Your task to perform on an android device: delete location history Image 0: 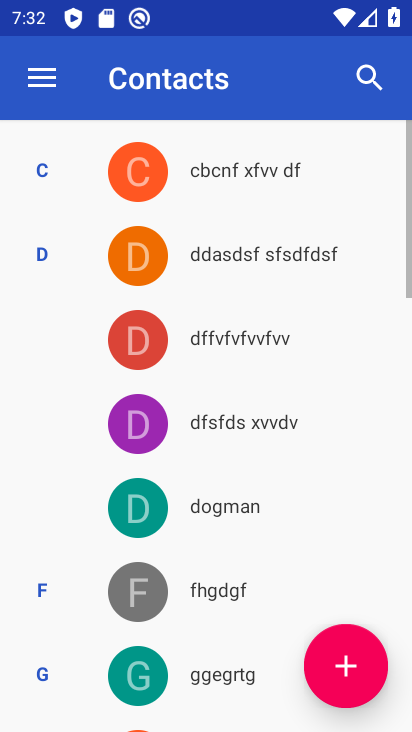
Step 0: press back button
Your task to perform on an android device: delete location history Image 1: 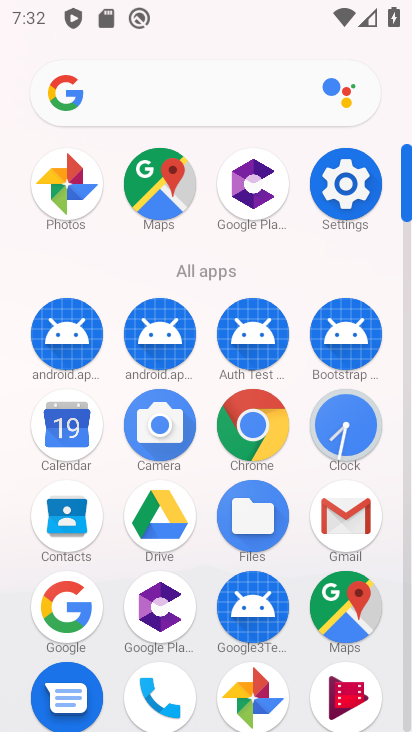
Step 1: click (175, 195)
Your task to perform on an android device: delete location history Image 2: 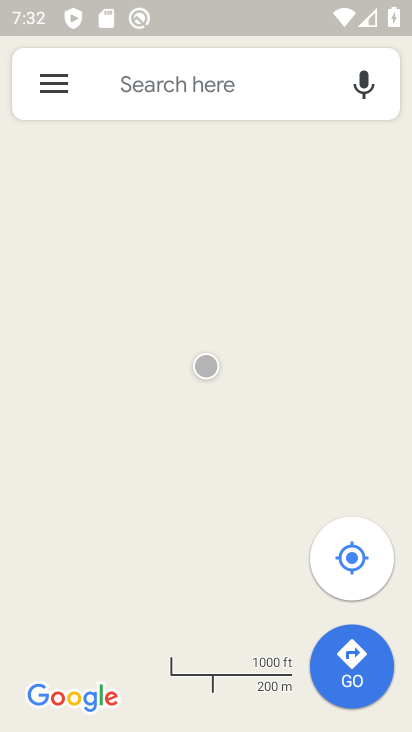
Step 2: click (39, 72)
Your task to perform on an android device: delete location history Image 3: 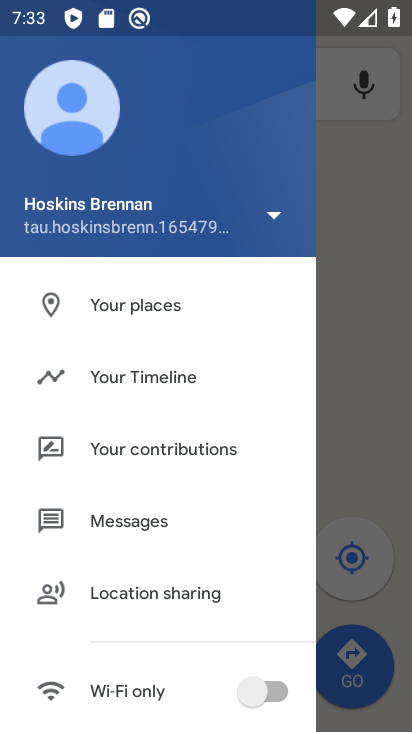
Step 3: click (159, 377)
Your task to perform on an android device: delete location history Image 4: 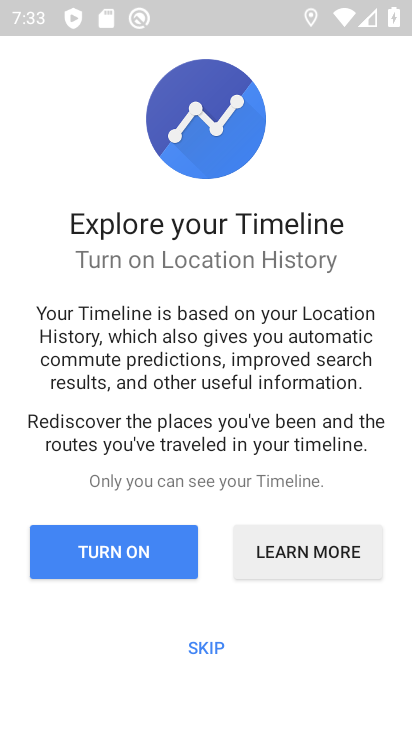
Step 4: click (206, 635)
Your task to perform on an android device: delete location history Image 5: 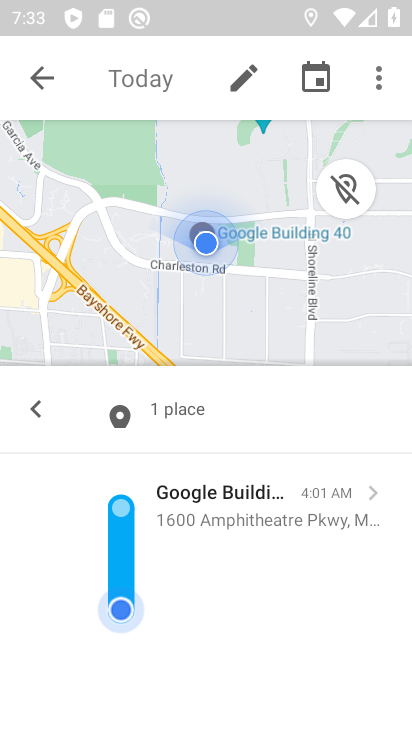
Step 5: click (374, 76)
Your task to perform on an android device: delete location history Image 6: 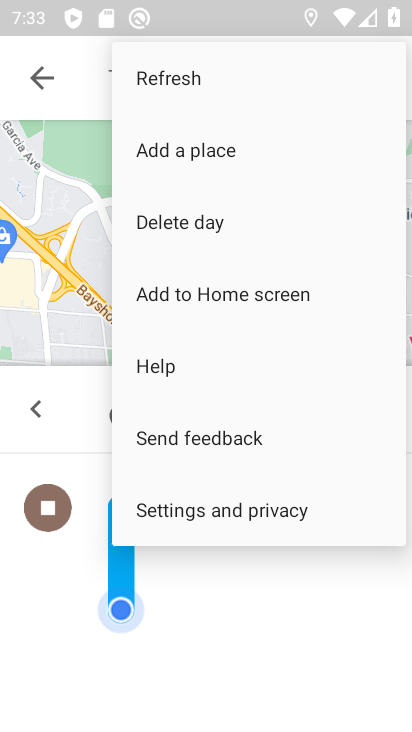
Step 6: click (223, 510)
Your task to perform on an android device: delete location history Image 7: 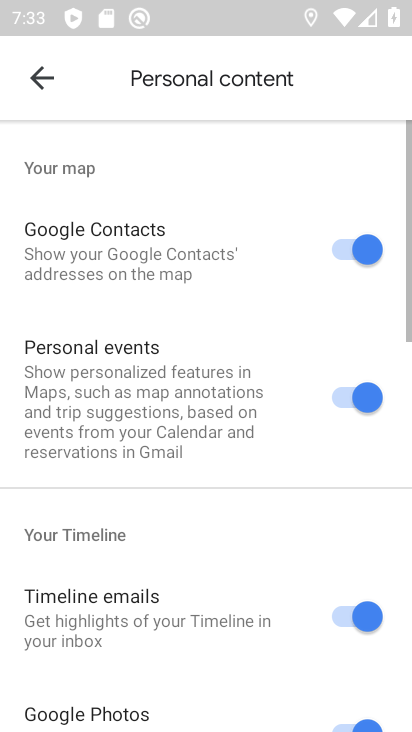
Step 7: drag from (165, 658) to (288, 159)
Your task to perform on an android device: delete location history Image 8: 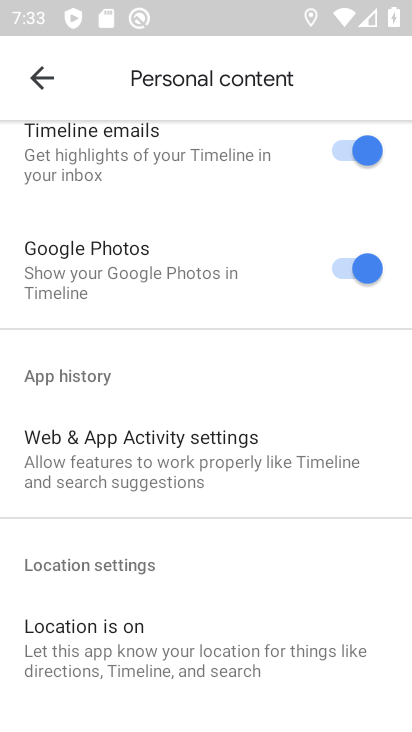
Step 8: drag from (126, 649) to (263, 112)
Your task to perform on an android device: delete location history Image 9: 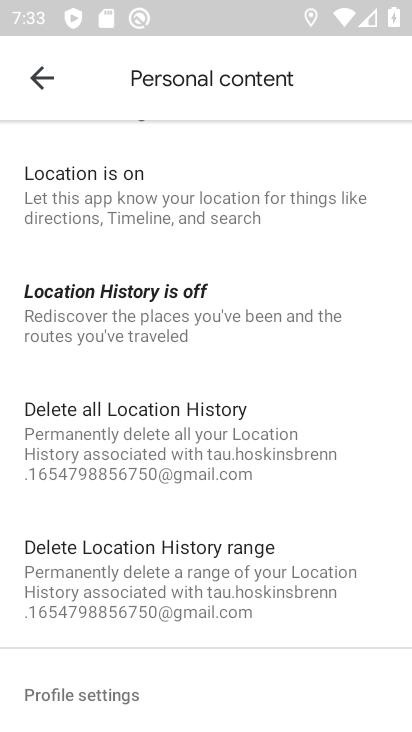
Step 9: click (149, 437)
Your task to perform on an android device: delete location history Image 10: 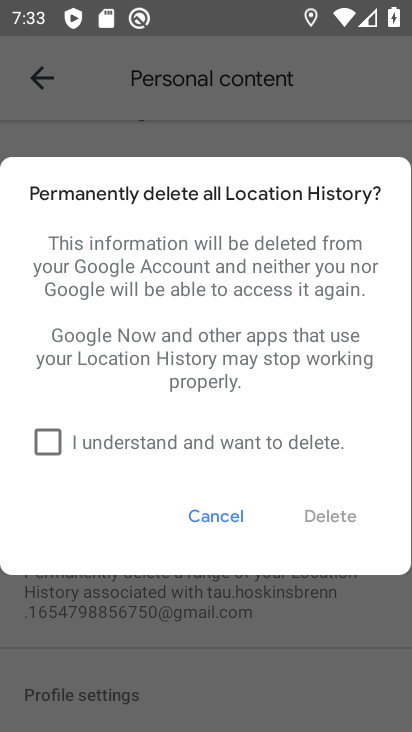
Step 10: click (61, 427)
Your task to perform on an android device: delete location history Image 11: 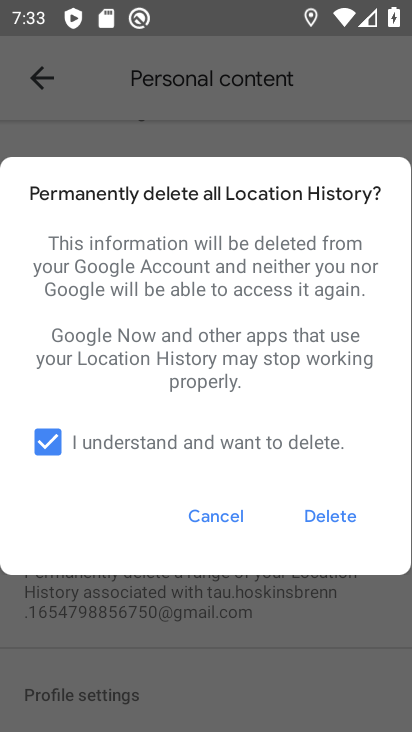
Step 11: click (324, 513)
Your task to perform on an android device: delete location history Image 12: 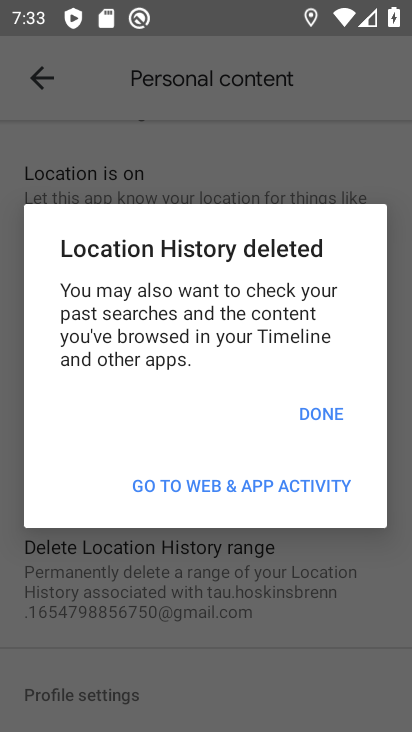
Step 12: click (319, 392)
Your task to perform on an android device: delete location history Image 13: 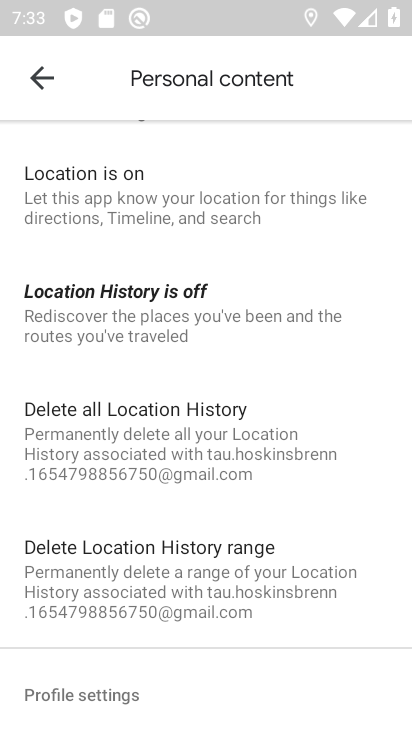
Step 13: task complete